Your task to perform on an android device: turn on showing notifications on the lock screen Image 0: 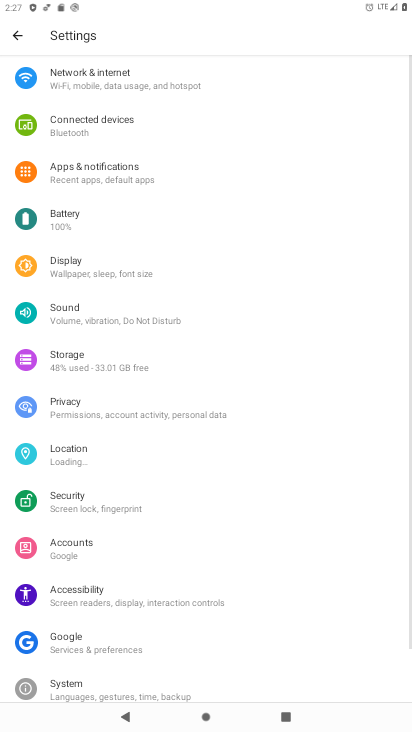
Step 0: press home button
Your task to perform on an android device: turn on showing notifications on the lock screen Image 1: 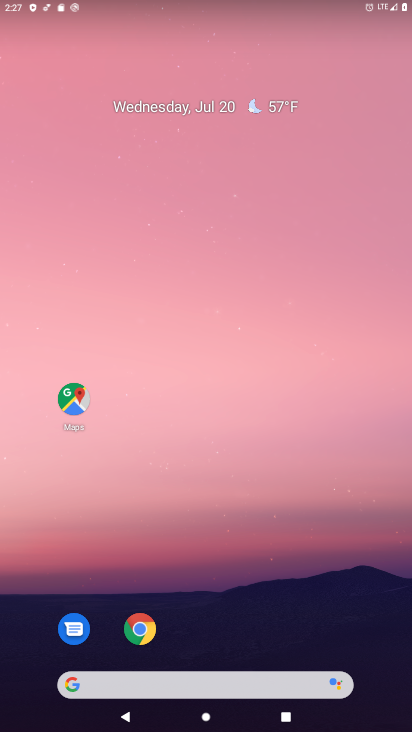
Step 1: drag from (374, 655) to (334, 31)
Your task to perform on an android device: turn on showing notifications on the lock screen Image 2: 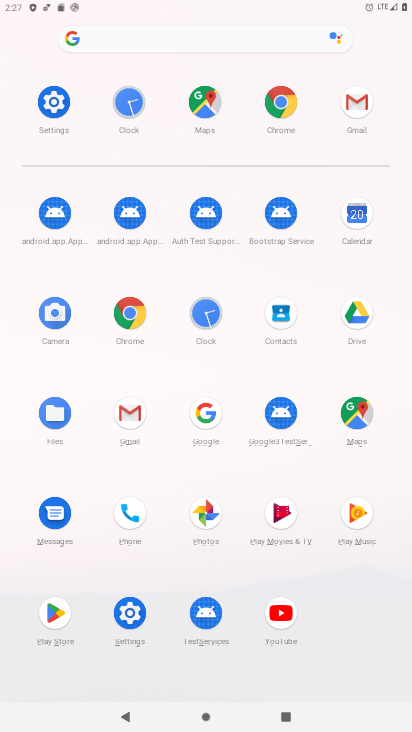
Step 2: click (127, 611)
Your task to perform on an android device: turn on showing notifications on the lock screen Image 3: 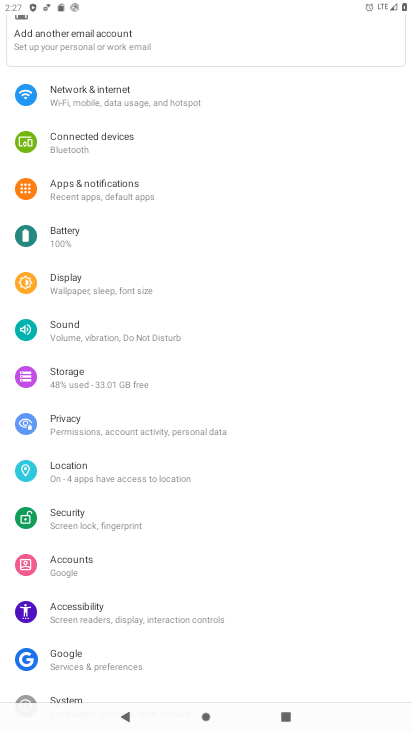
Step 3: click (94, 176)
Your task to perform on an android device: turn on showing notifications on the lock screen Image 4: 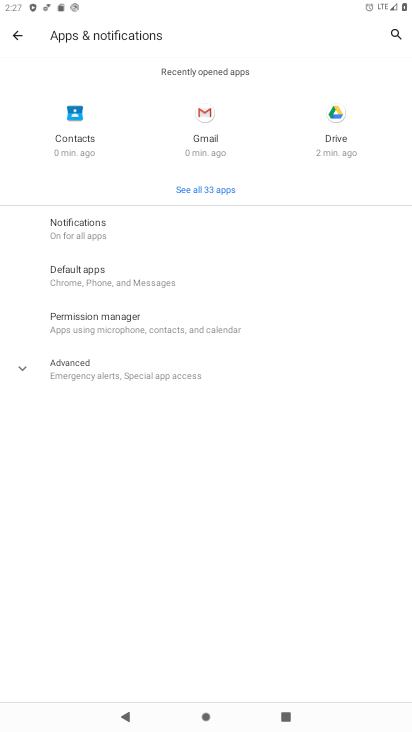
Step 4: click (73, 223)
Your task to perform on an android device: turn on showing notifications on the lock screen Image 5: 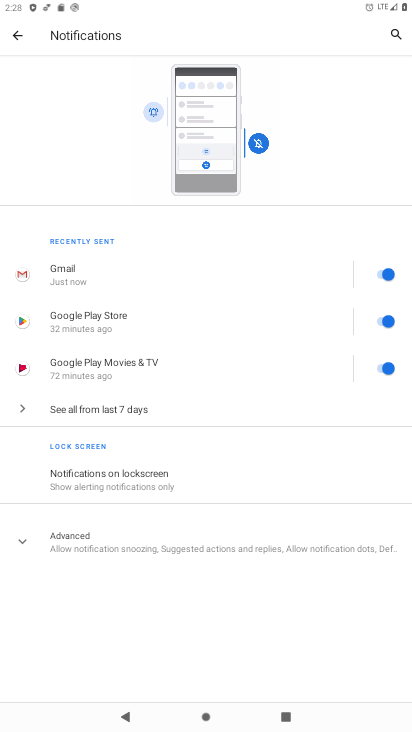
Step 5: click (113, 472)
Your task to perform on an android device: turn on showing notifications on the lock screen Image 6: 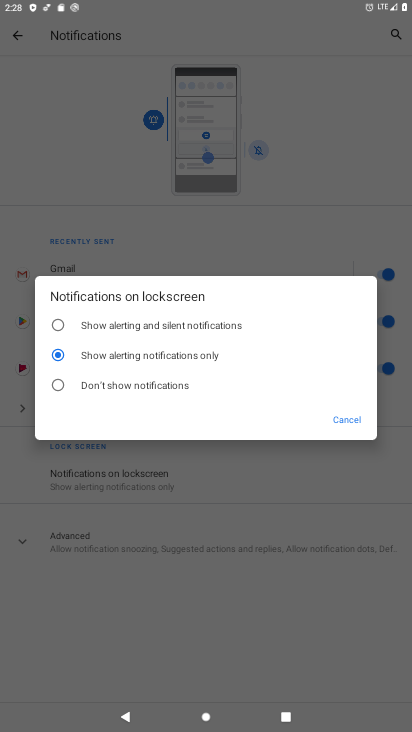
Step 6: task complete